Your task to perform on an android device: Toggle the flashlight Image 0: 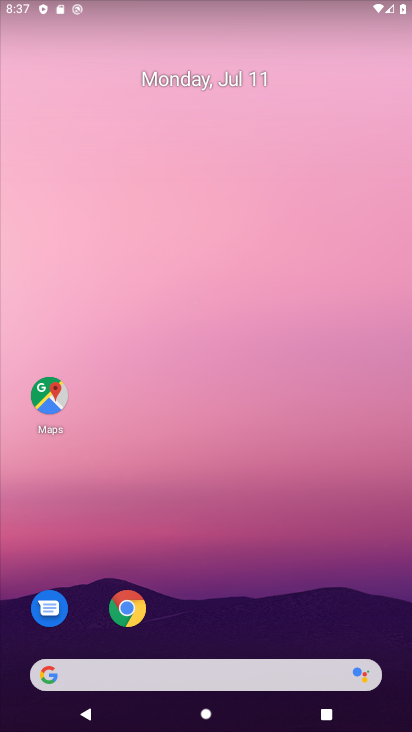
Step 0: click (209, 11)
Your task to perform on an android device: Toggle the flashlight Image 1: 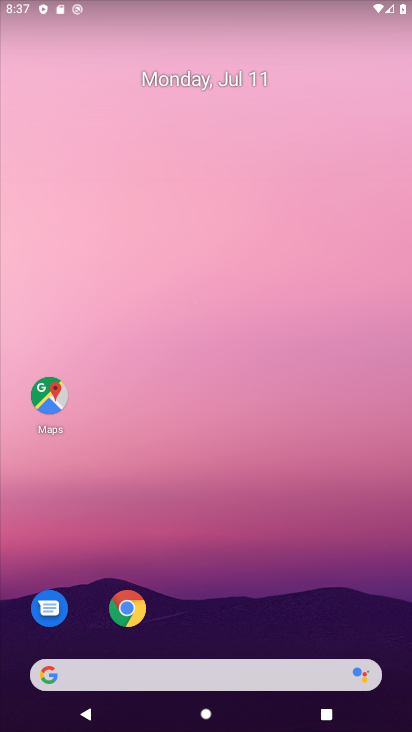
Step 1: task complete